Your task to perform on an android device: allow cookies in the chrome app Image 0: 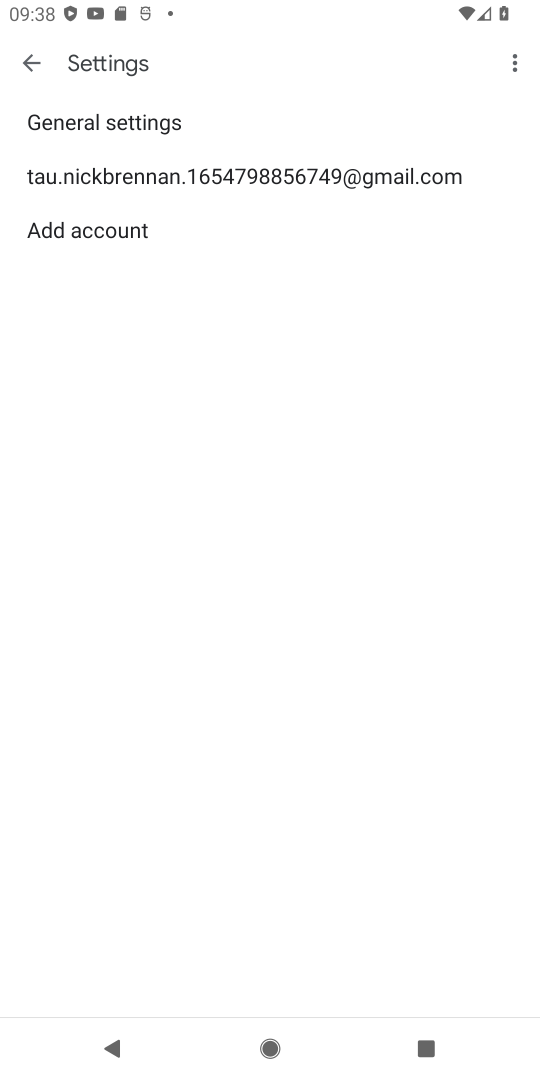
Step 0: press home button
Your task to perform on an android device: allow cookies in the chrome app Image 1: 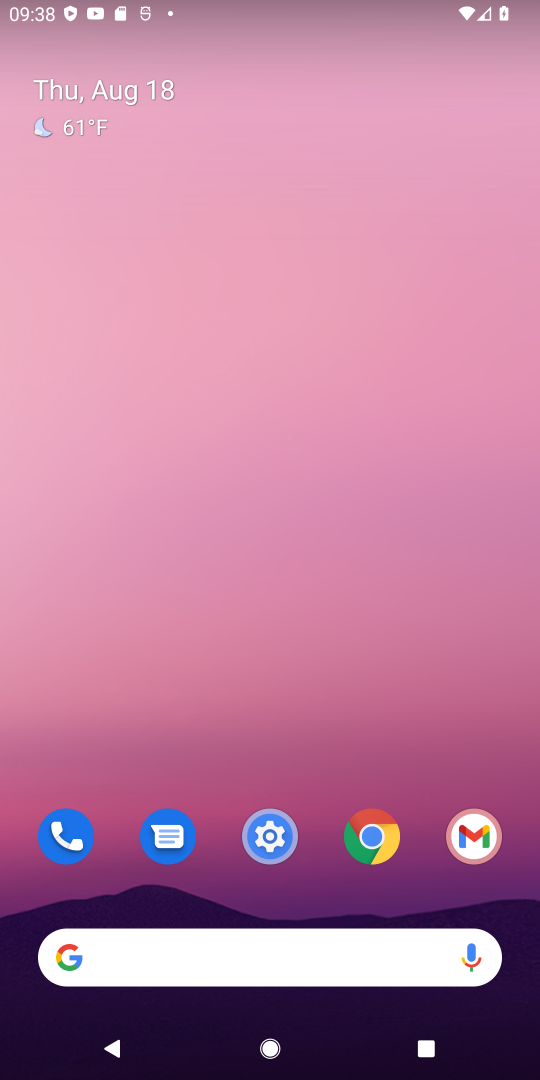
Step 1: drag from (410, 743) to (391, 64)
Your task to perform on an android device: allow cookies in the chrome app Image 2: 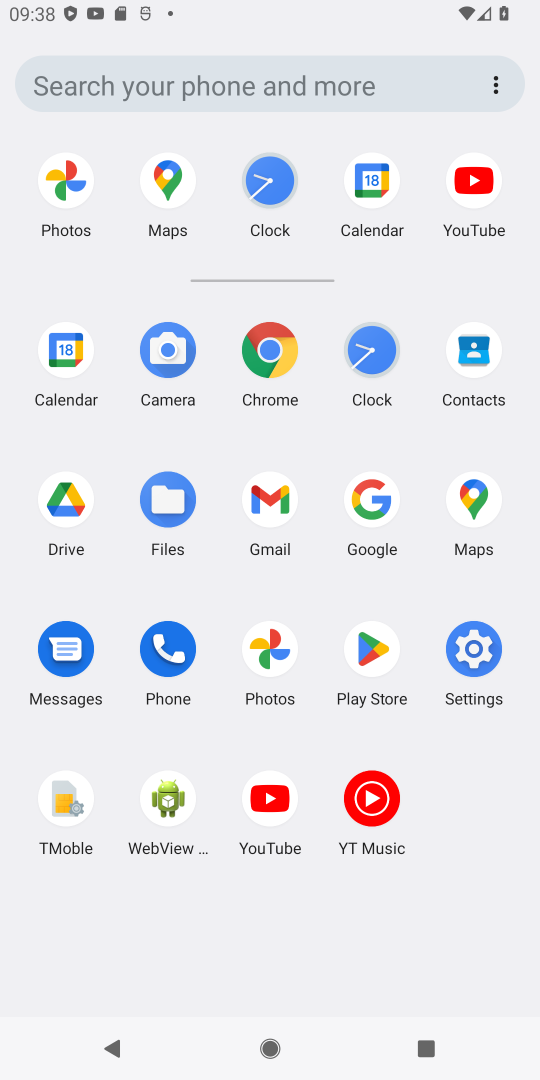
Step 2: click (270, 353)
Your task to perform on an android device: allow cookies in the chrome app Image 3: 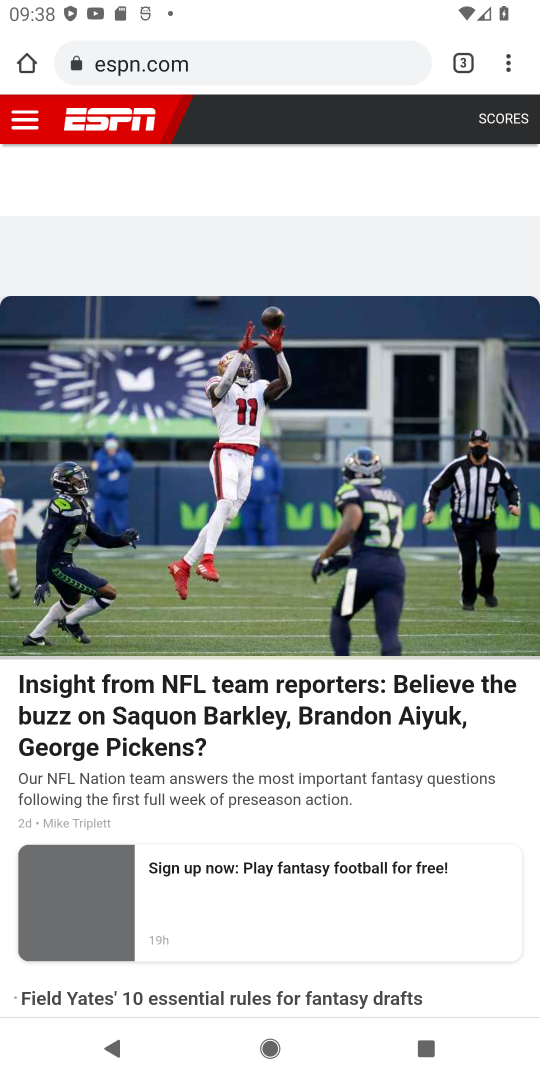
Step 3: drag from (509, 58) to (369, 830)
Your task to perform on an android device: allow cookies in the chrome app Image 4: 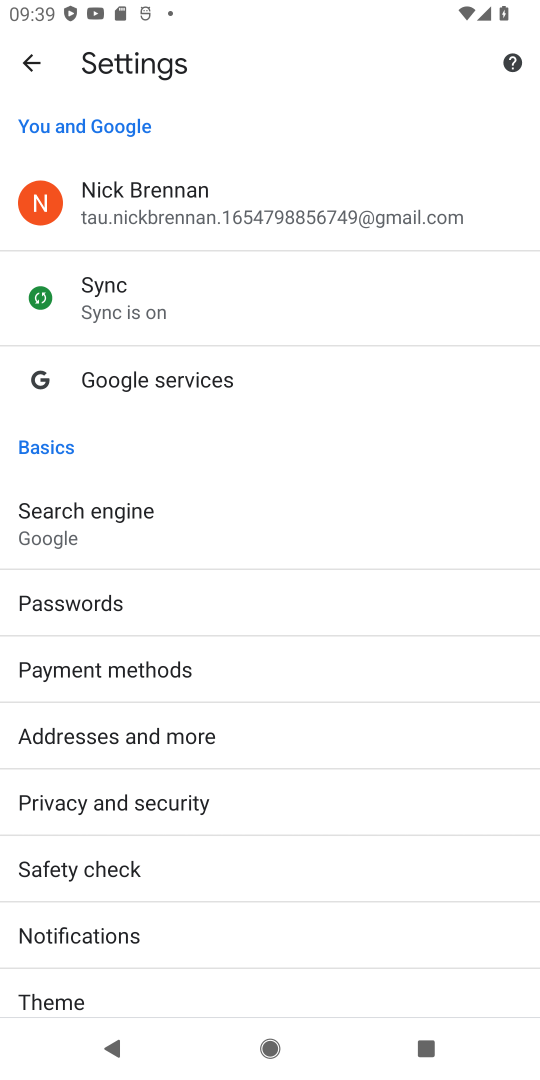
Step 4: drag from (276, 974) to (336, 482)
Your task to perform on an android device: allow cookies in the chrome app Image 5: 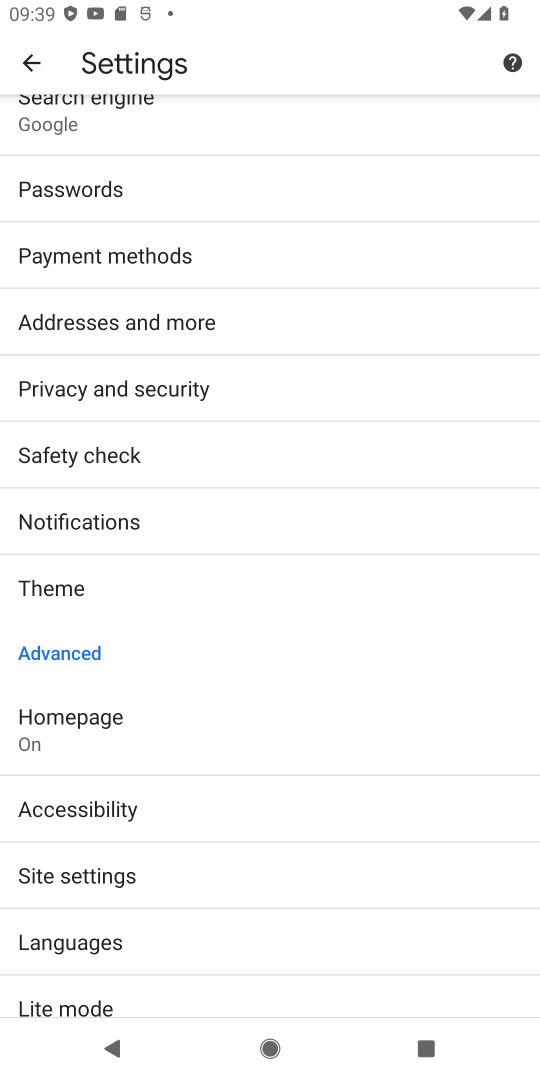
Step 5: click (83, 890)
Your task to perform on an android device: allow cookies in the chrome app Image 6: 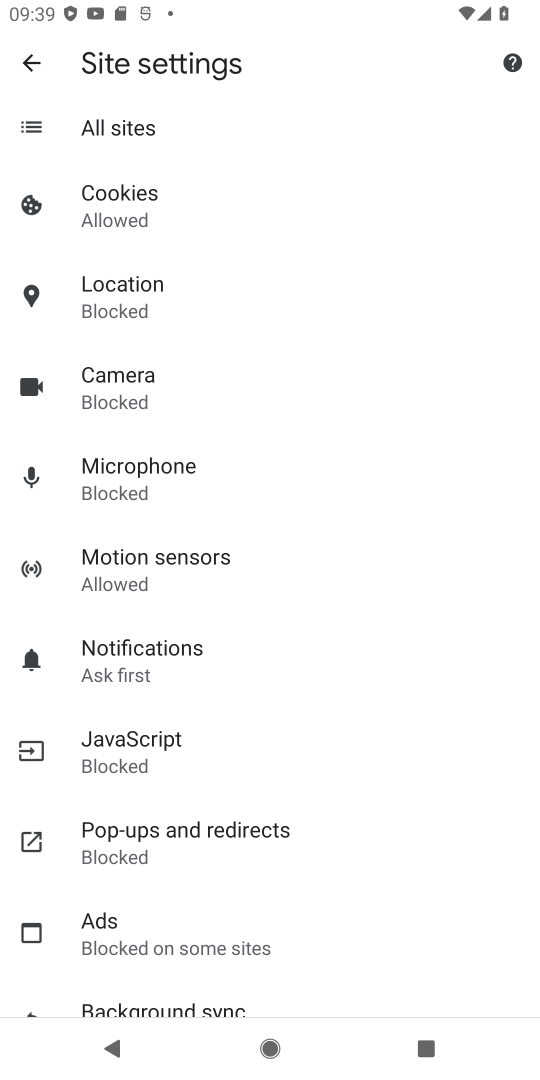
Step 6: click (144, 210)
Your task to perform on an android device: allow cookies in the chrome app Image 7: 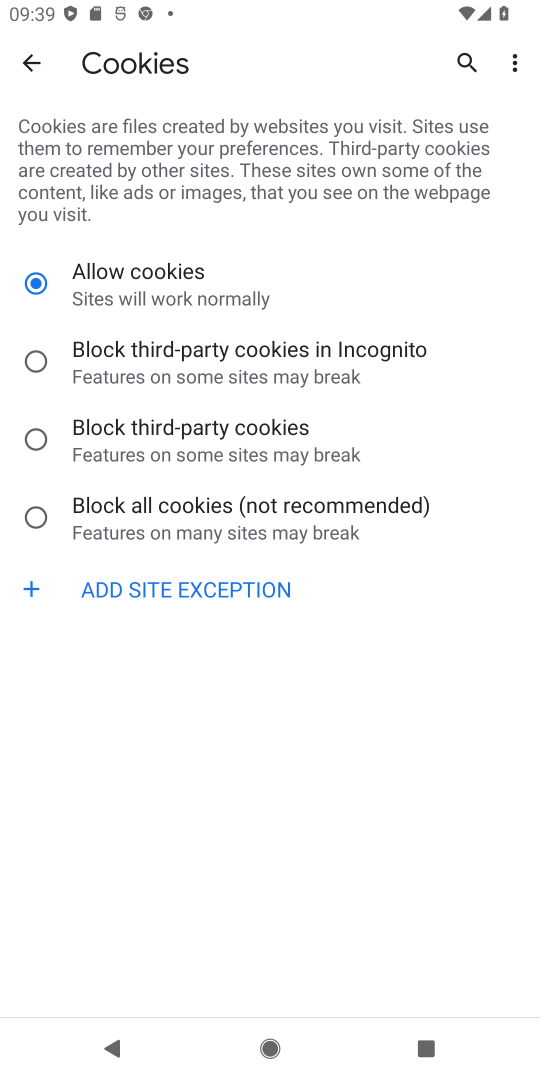
Step 7: task complete